Your task to perform on an android device: toggle airplane mode Image 0: 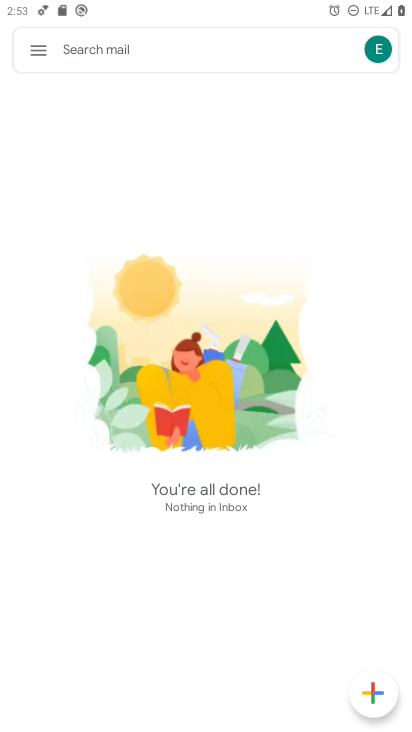
Step 0: press home button
Your task to perform on an android device: toggle airplane mode Image 1: 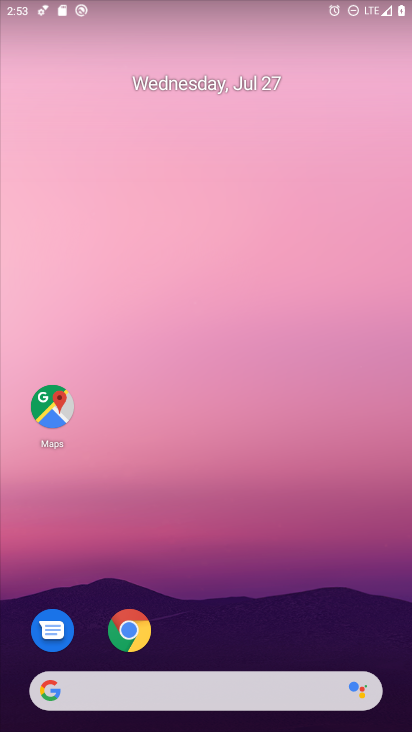
Step 1: drag from (383, 628) to (360, 107)
Your task to perform on an android device: toggle airplane mode Image 2: 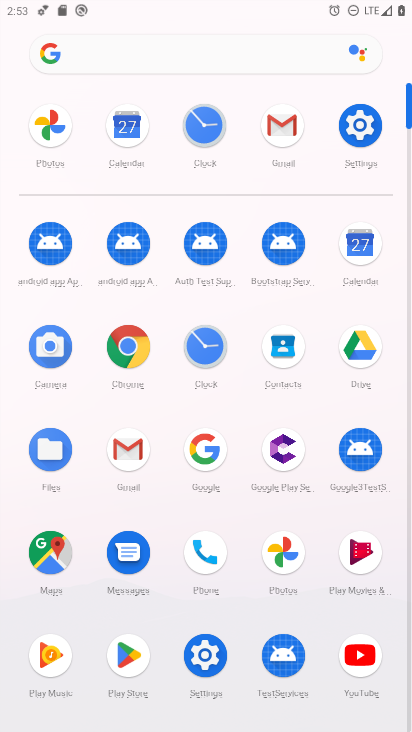
Step 2: click (206, 654)
Your task to perform on an android device: toggle airplane mode Image 3: 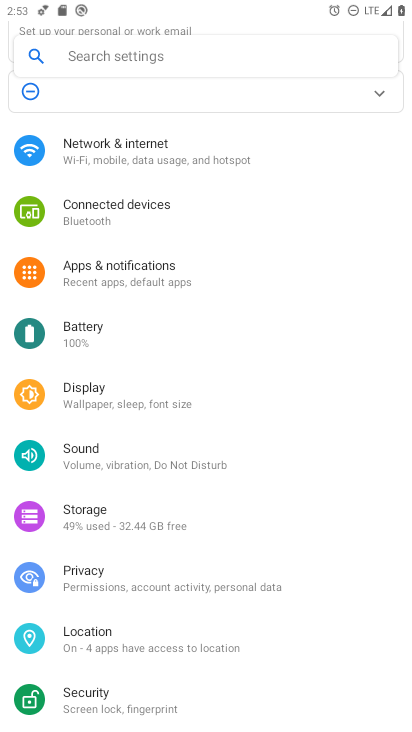
Step 3: click (116, 146)
Your task to perform on an android device: toggle airplane mode Image 4: 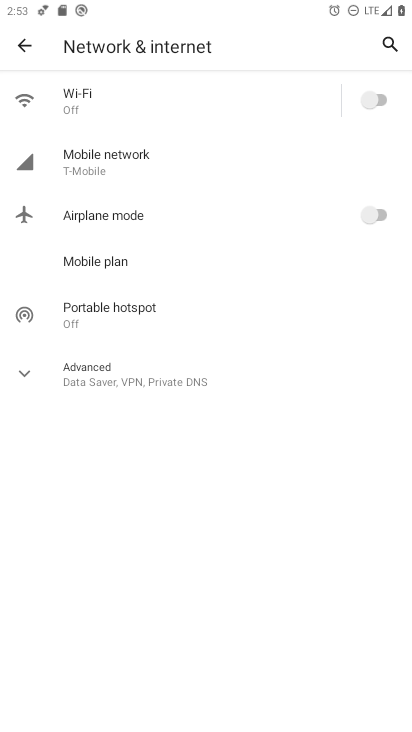
Step 4: click (381, 212)
Your task to perform on an android device: toggle airplane mode Image 5: 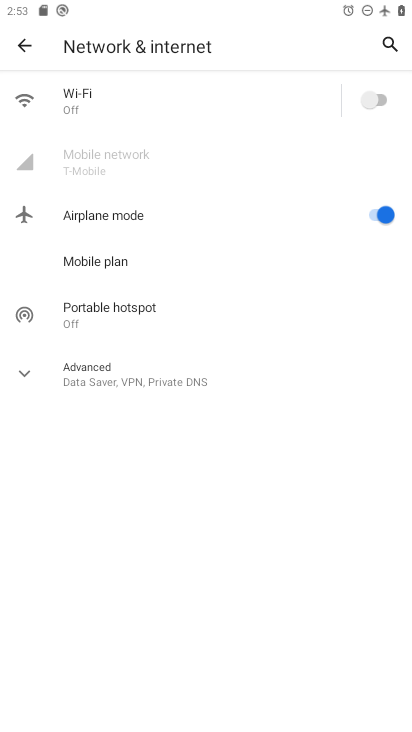
Step 5: task complete